Your task to perform on an android device: Search for jbl flip 4 on walmart.com, select the first entry, add it to the cart, then select checkout. Image 0: 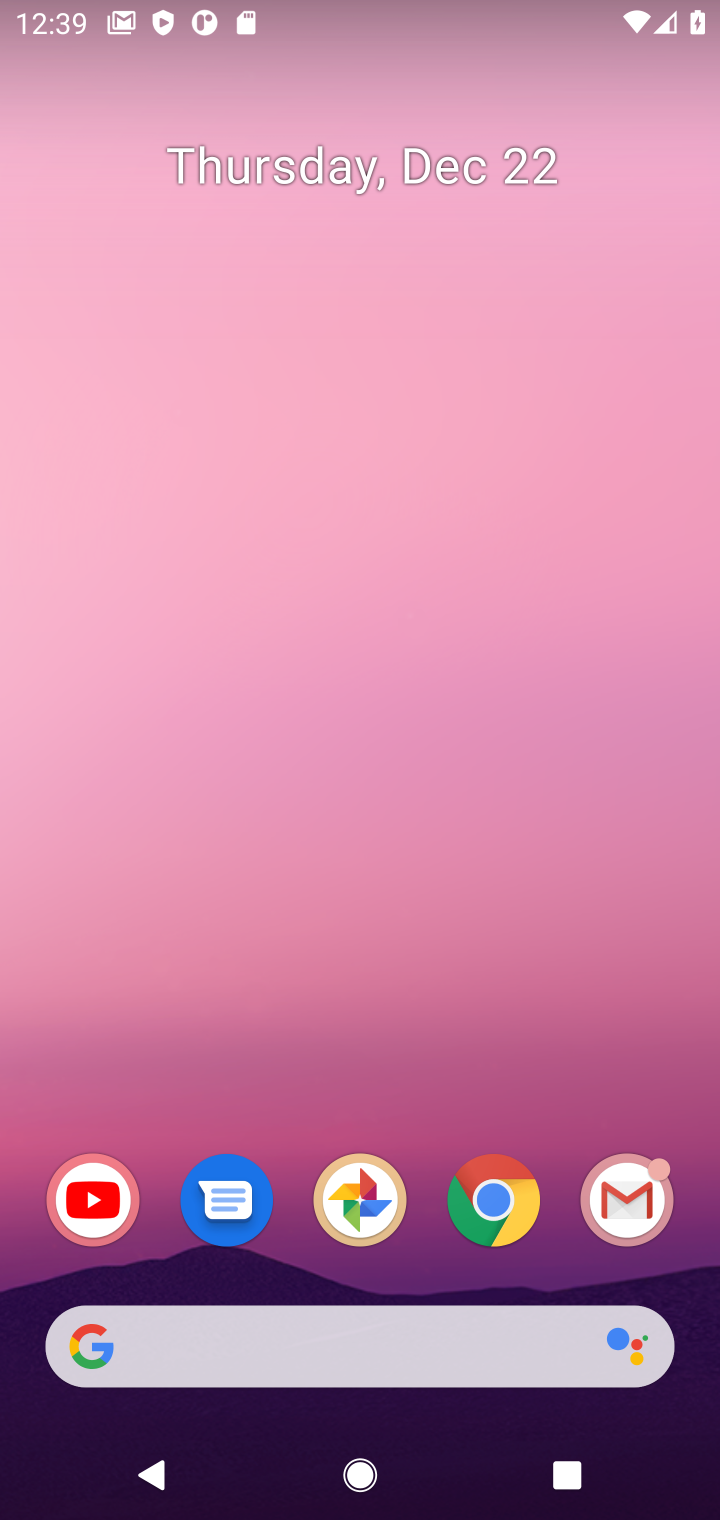
Step 0: click (493, 1199)
Your task to perform on an android device: Search for jbl flip 4 on walmart.com, select the first entry, add it to the cart, then select checkout. Image 1: 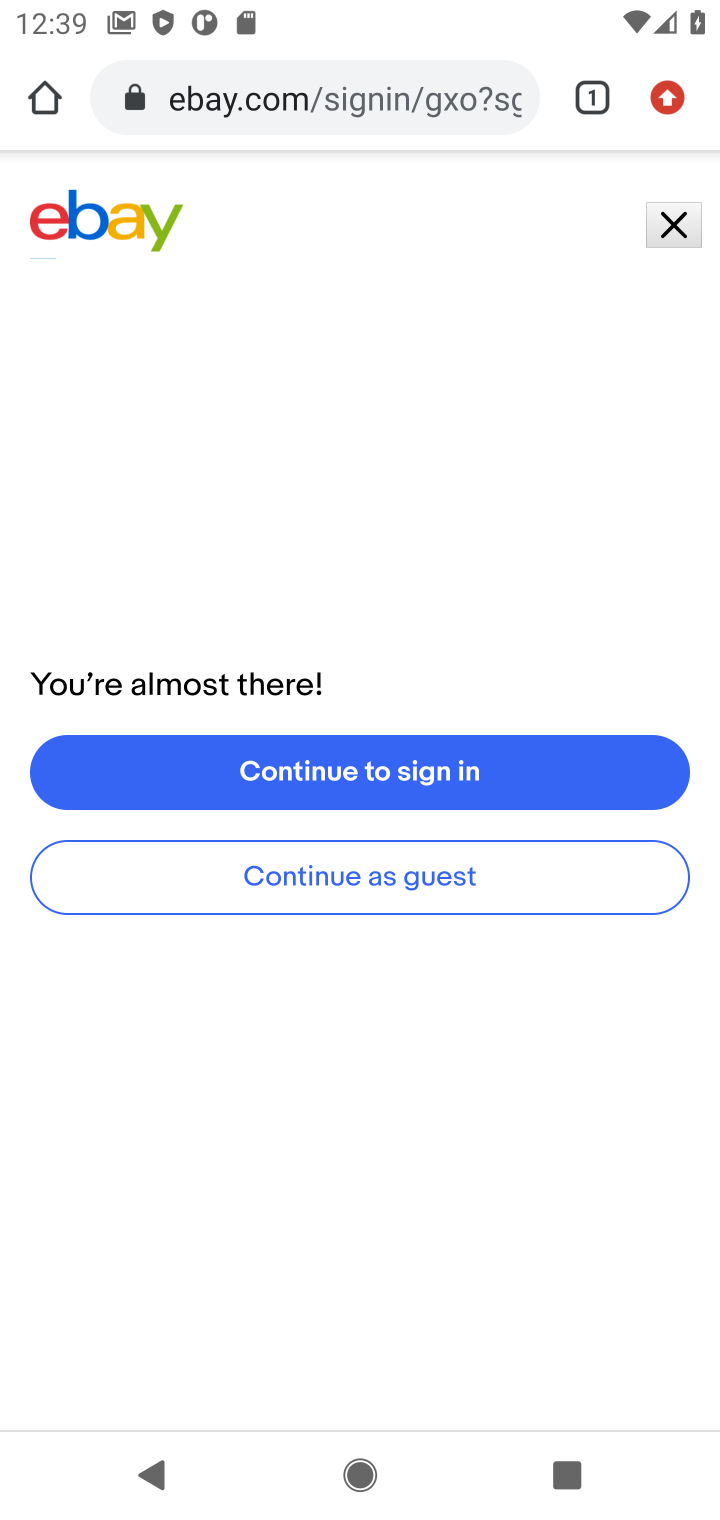
Step 1: click (287, 101)
Your task to perform on an android device: Search for jbl flip 4 on walmart.com, select the first entry, add it to the cart, then select checkout. Image 2: 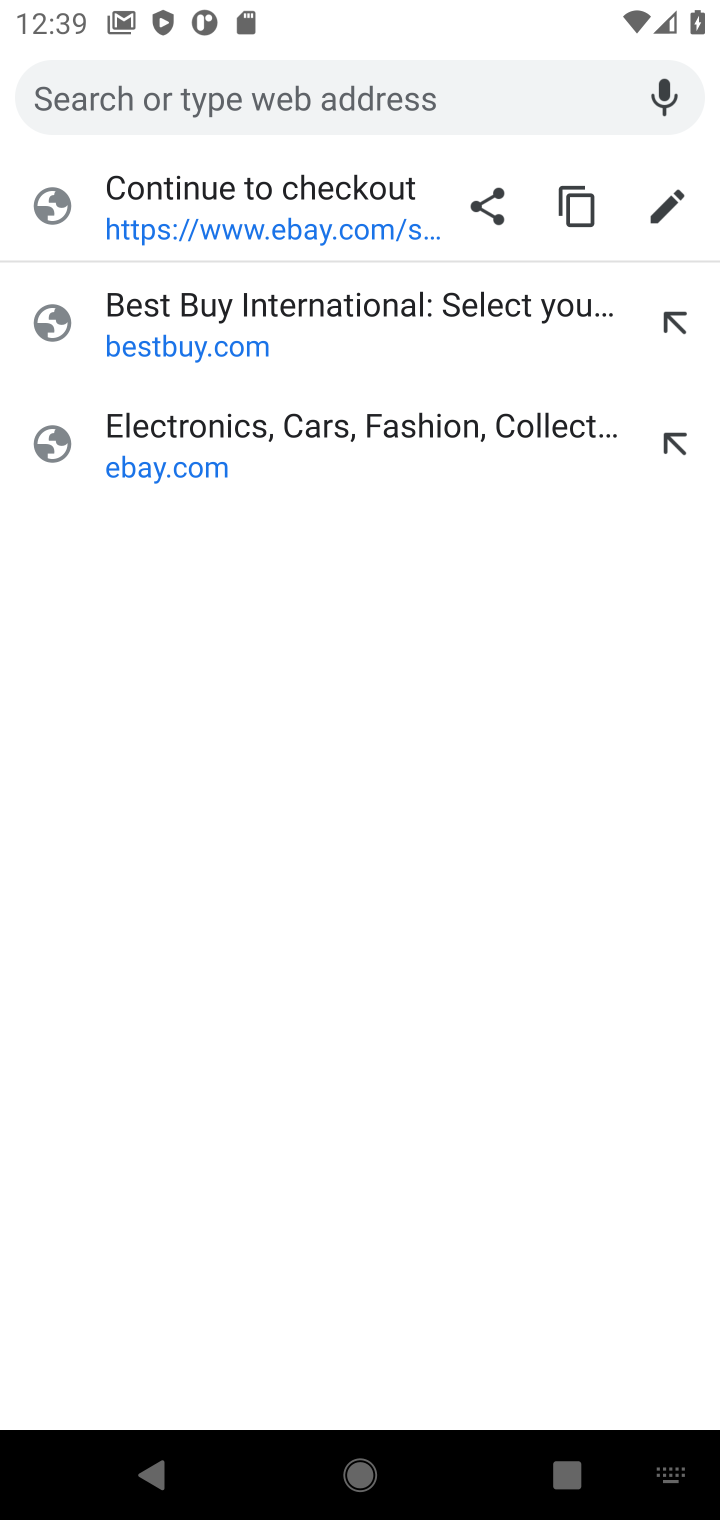
Step 2: type "walmart.com"
Your task to perform on an android device: Search for jbl flip 4 on walmart.com, select the first entry, add it to the cart, then select checkout. Image 3: 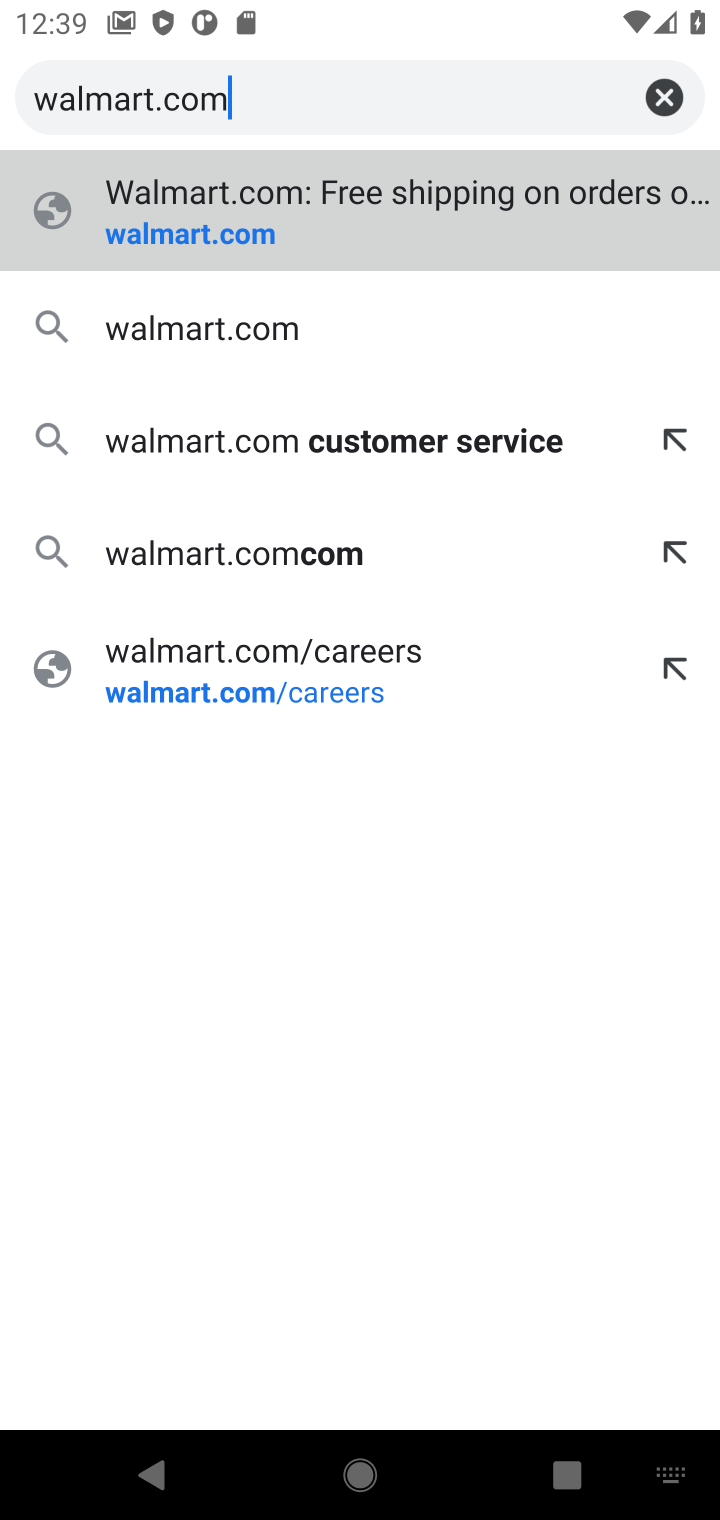
Step 3: click (173, 211)
Your task to perform on an android device: Search for jbl flip 4 on walmart.com, select the first entry, add it to the cart, then select checkout. Image 4: 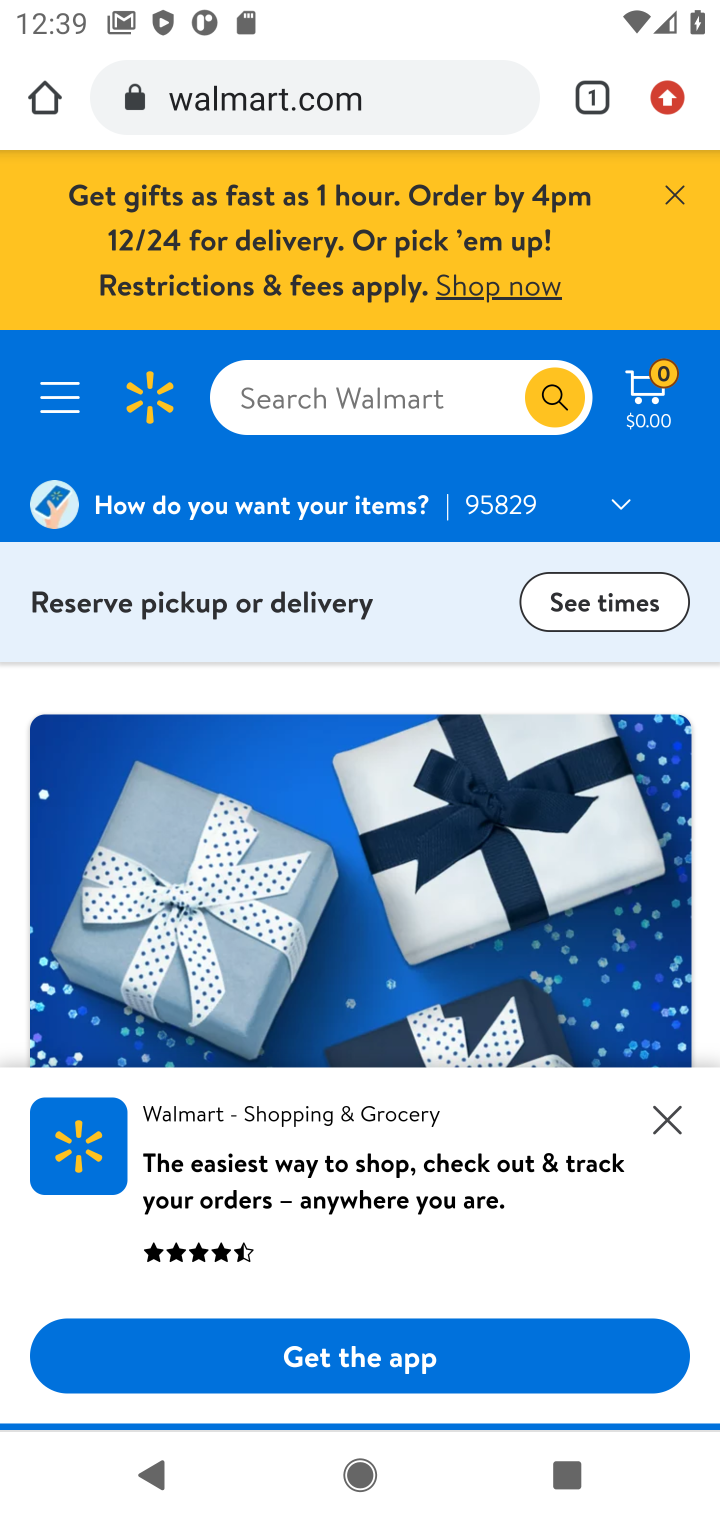
Step 4: click (338, 402)
Your task to perform on an android device: Search for jbl flip 4 on walmart.com, select the first entry, add it to the cart, then select checkout. Image 5: 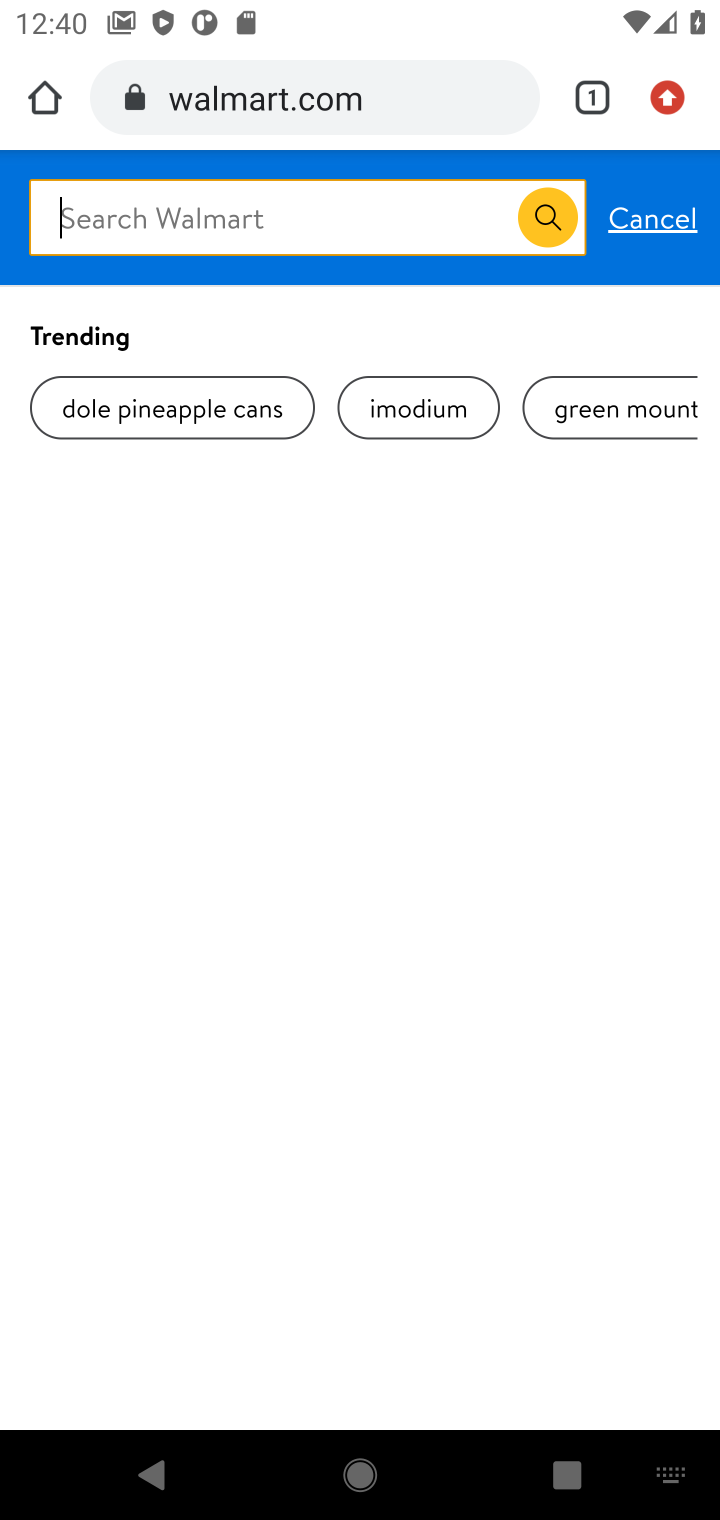
Step 5: type "jbl flip 4"
Your task to perform on an android device: Search for jbl flip 4 on walmart.com, select the first entry, add it to the cart, then select checkout. Image 6: 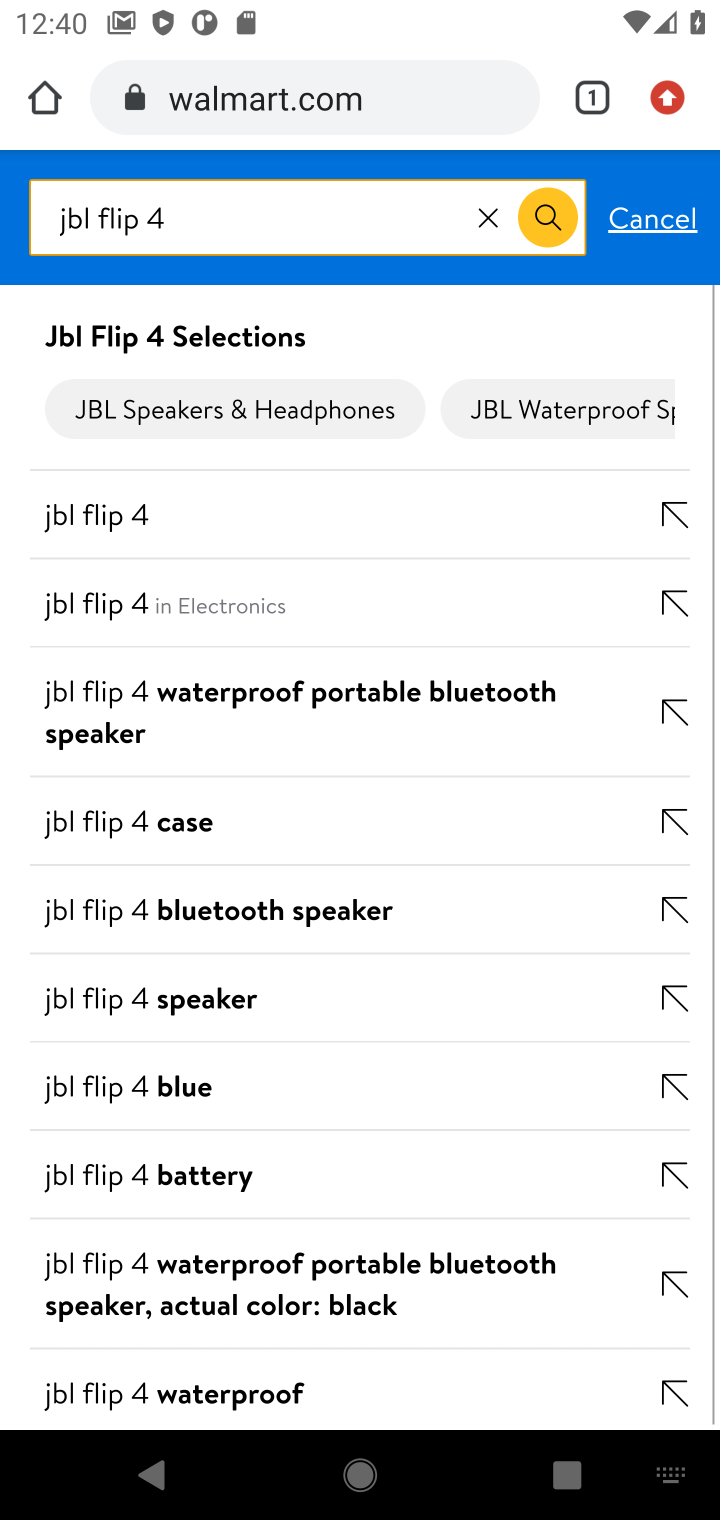
Step 6: click (94, 515)
Your task to perform on an android device: Search for jbl flip 4 on walmart.com, select the first entry, add it to the cart, then select checkout. Image 7: 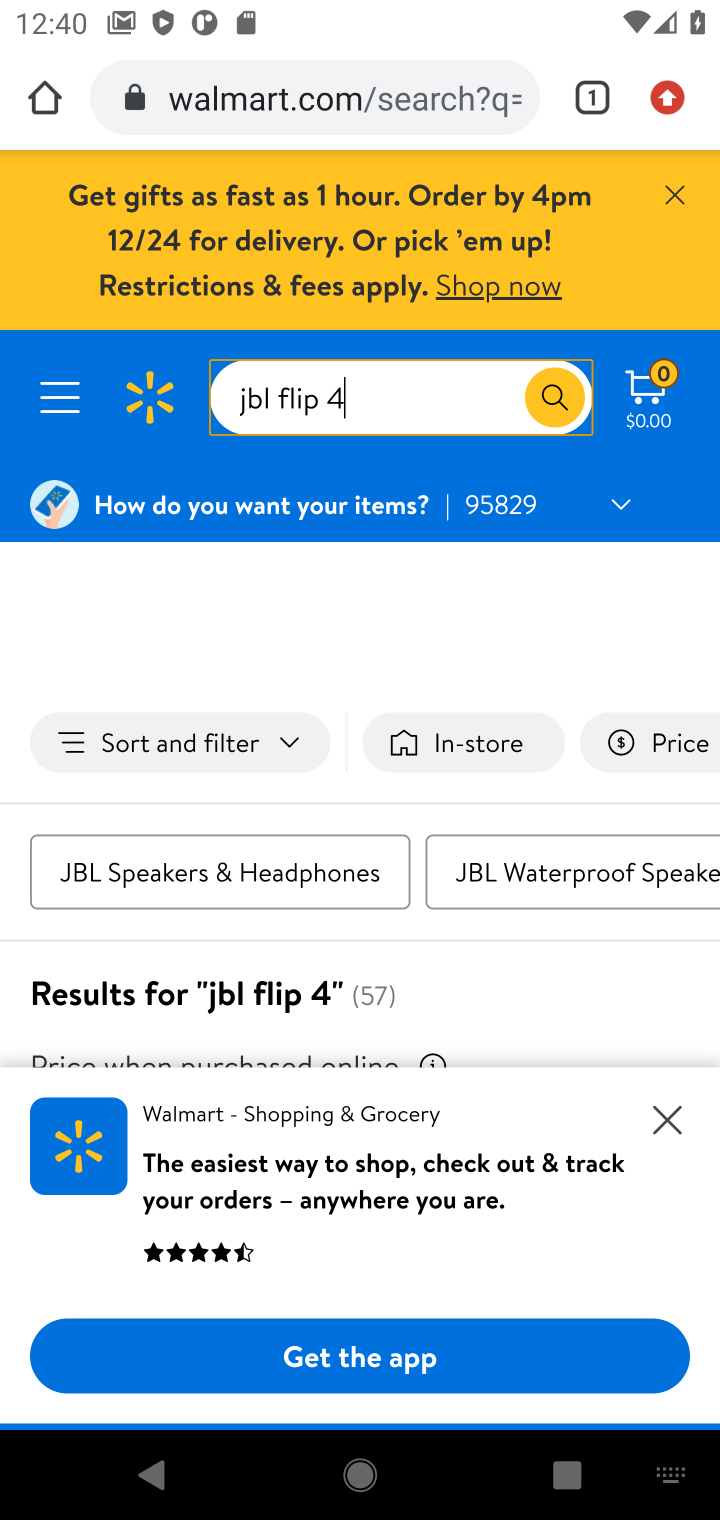
Step 7: click (681, 1134)
Your task to perform on an android device: Search for jbl flip 4 on walmart.com, select the first entry, add it to the cart, then select checkout. Image 8: 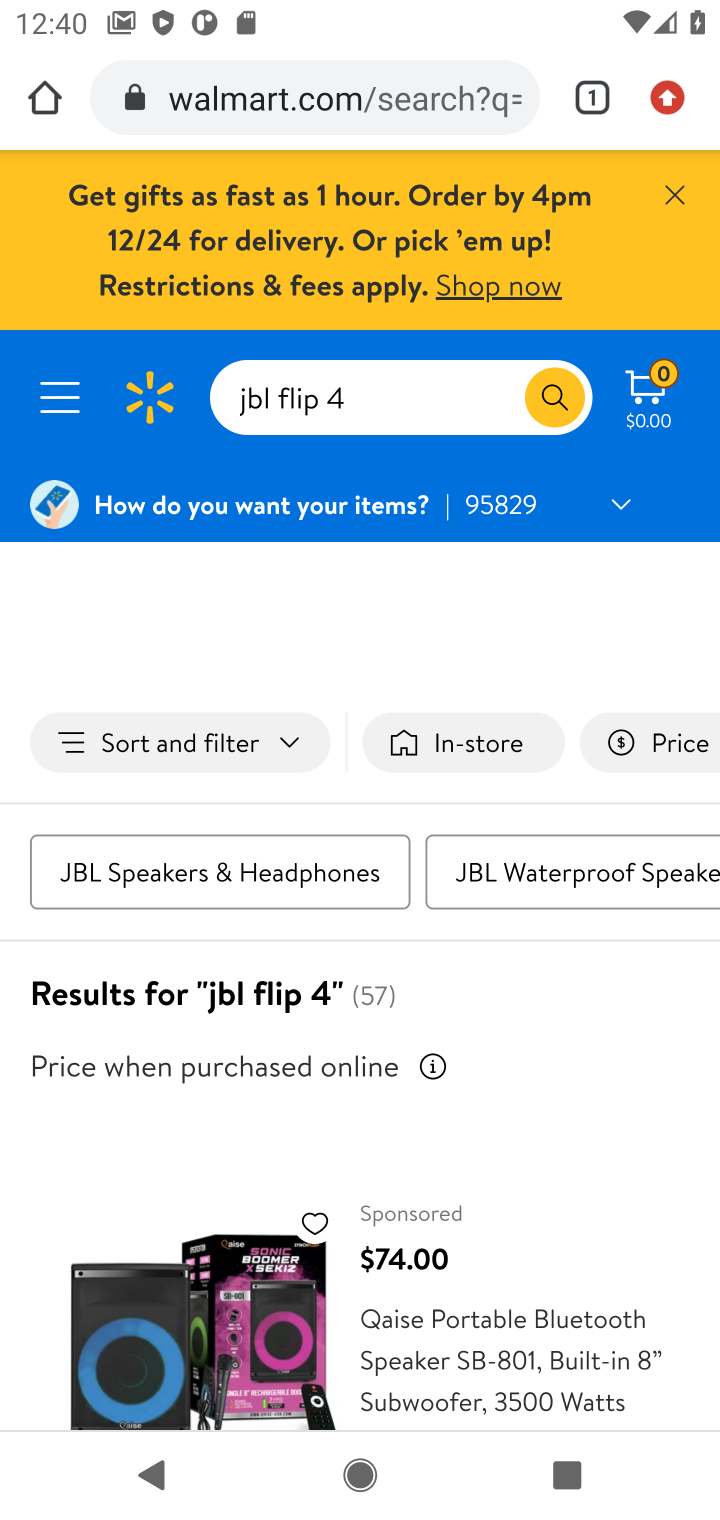
Step 8: task complete